Your task to perform on an android device: Add usb-c to usb-b to the cart on bestbuy.com Image 0: 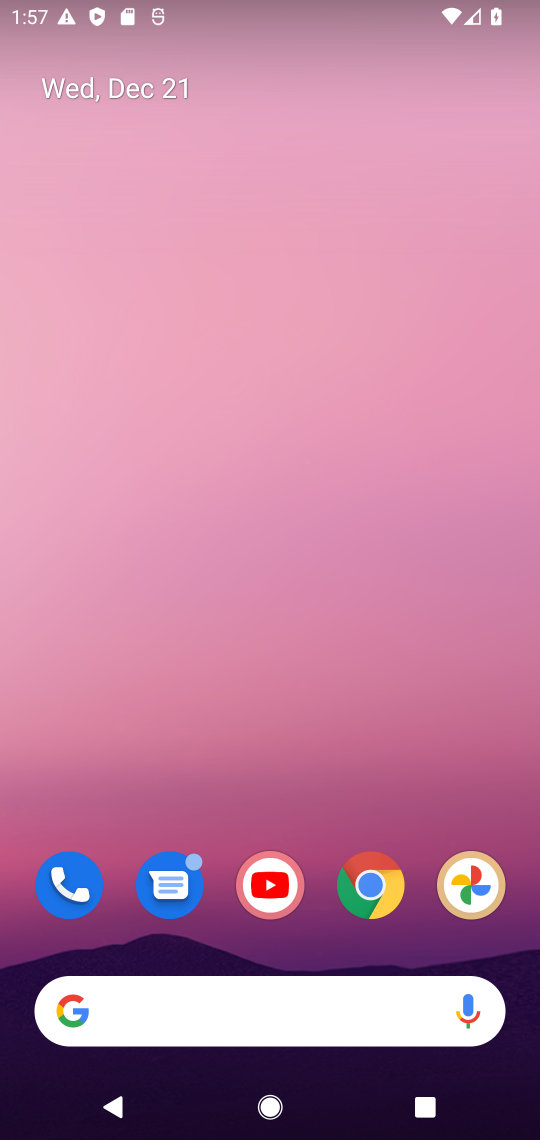
Step 0: drag from (241, 899) to (241, 681)
Your task to perform on an android device: Add usb-c to usb-b to the cart on bestbuy.com Image 1: 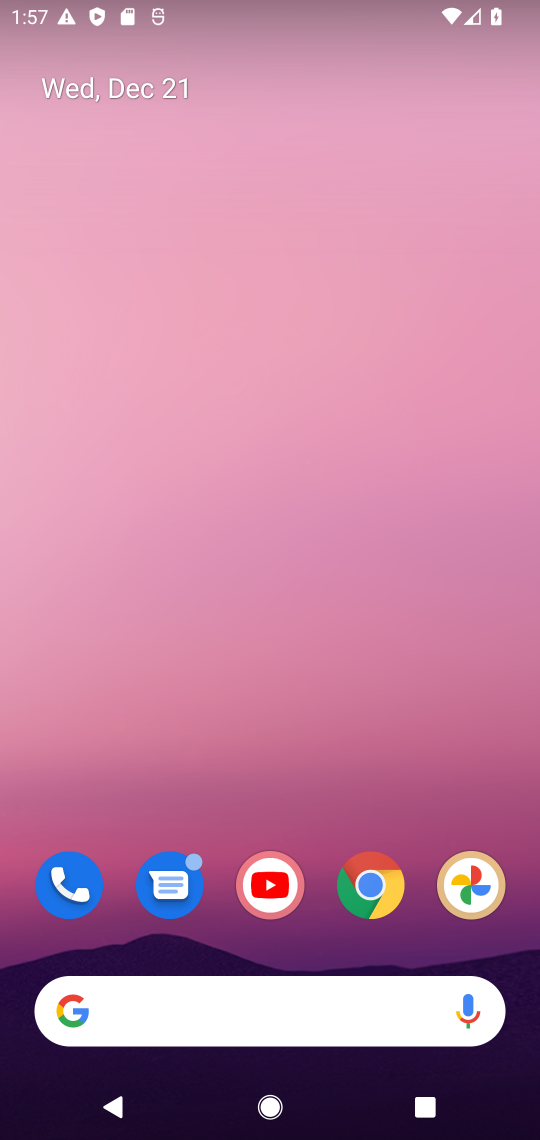
Step 1: drag from (260, 972) to (272, 471)
Your task to perform on an android device: Add usb-c to usb-b to the cart on bestbuy.com Image 2: 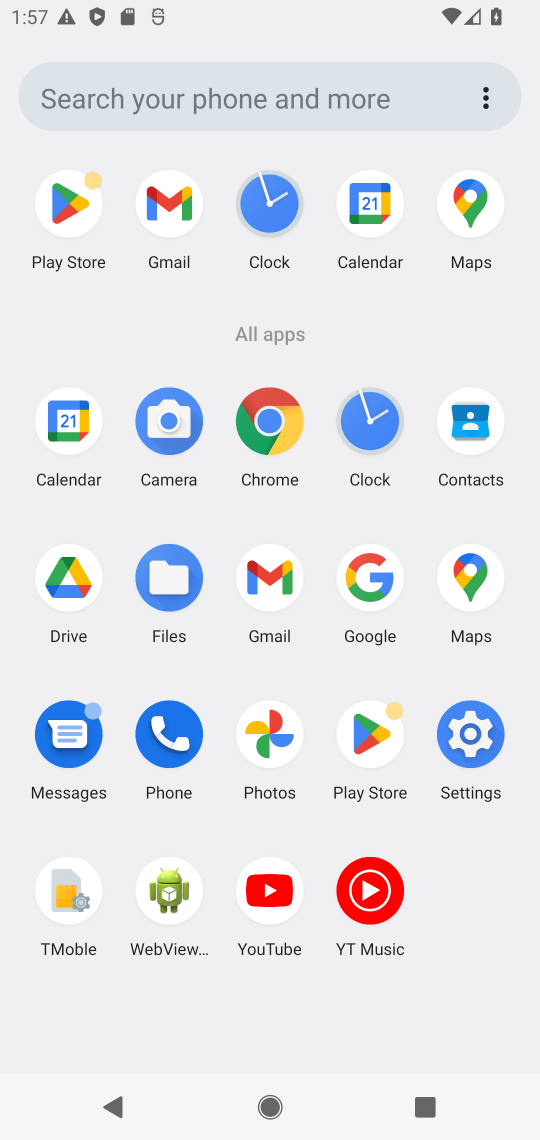
Step 2: click (377, 581)
Your task to perform on an android device: Add usb-c to usb-b to the cart on bestbuy.com Image 3: 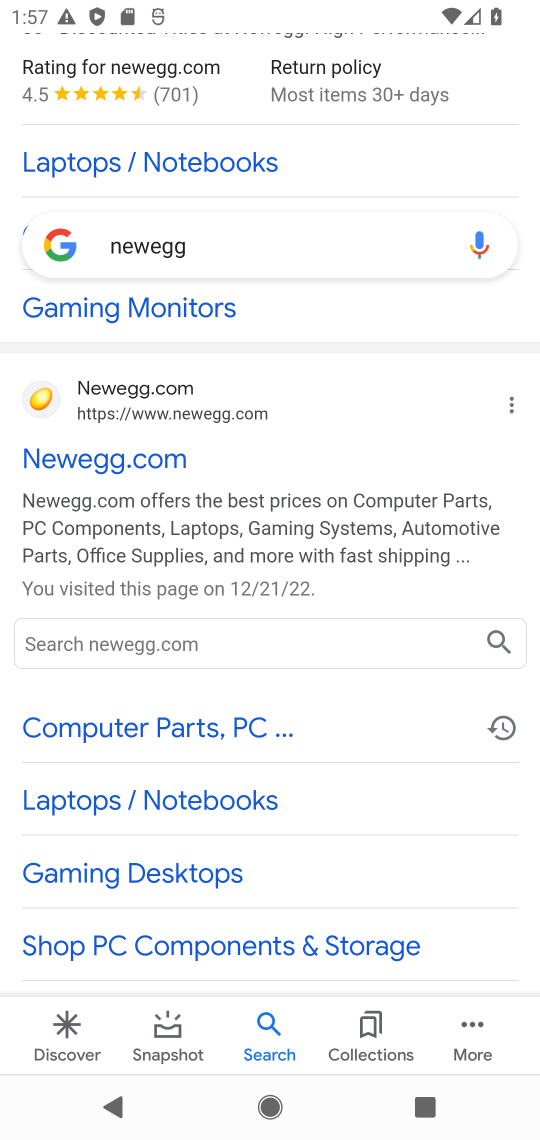
Step 3: drag from (169, 169) to (209, 757)
Your task to perform on an android device: Add usb-c to usb-b to the cart on bestbuy.com Image 4: 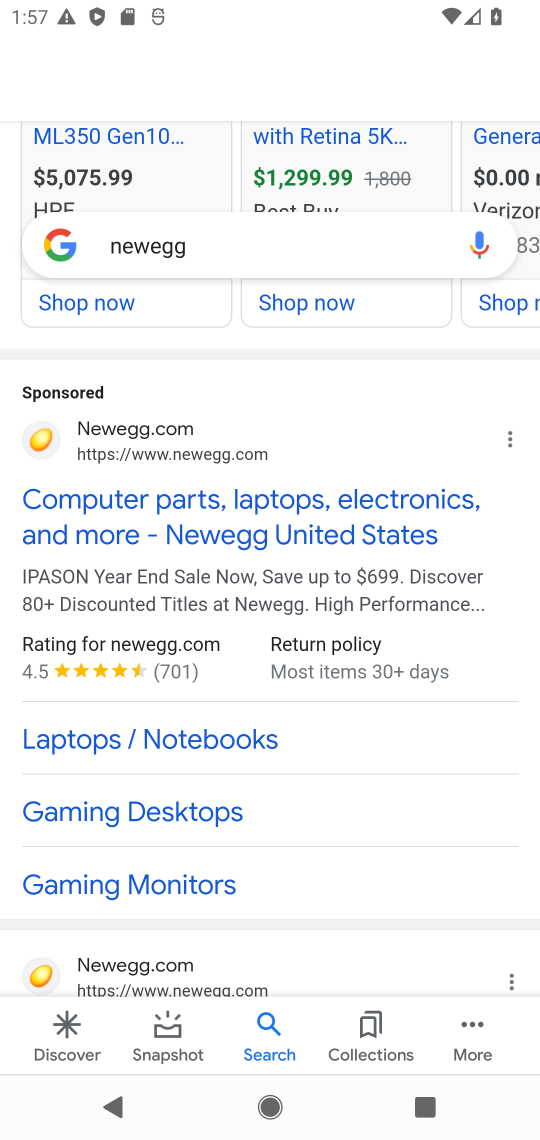
Step 4: drag from (212, 211) to (298, 815)
Your task to perform on an android device: Add usb-c to usb-b to the cart on bestbuy.com Image 5: 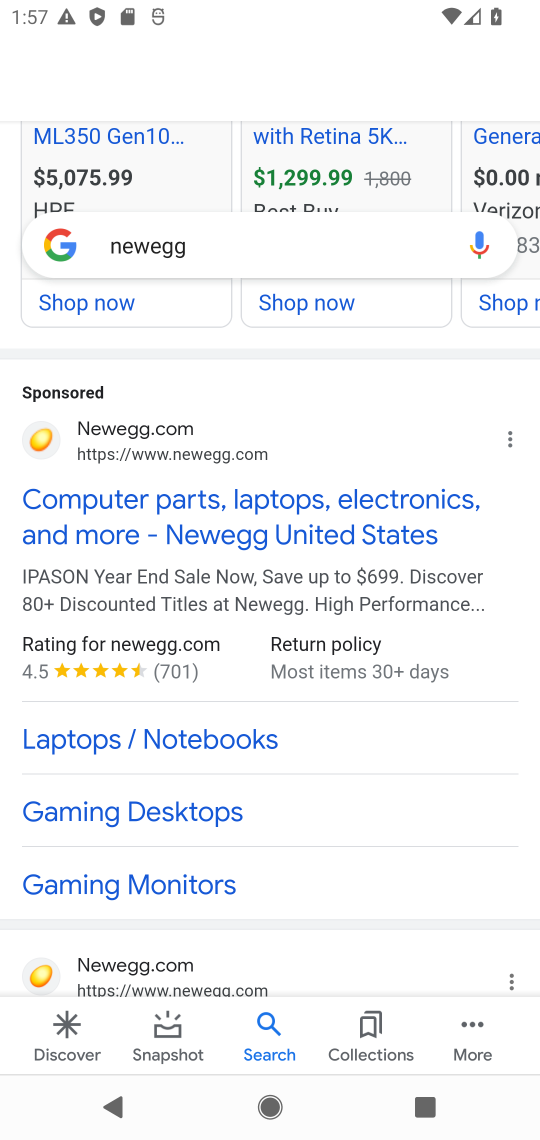
Step 5: drag from (224, 179) to (273, 934)
Your task to perform on an android device: Add usb-c to usb-b to the cart on bestbuy.com Image 6: 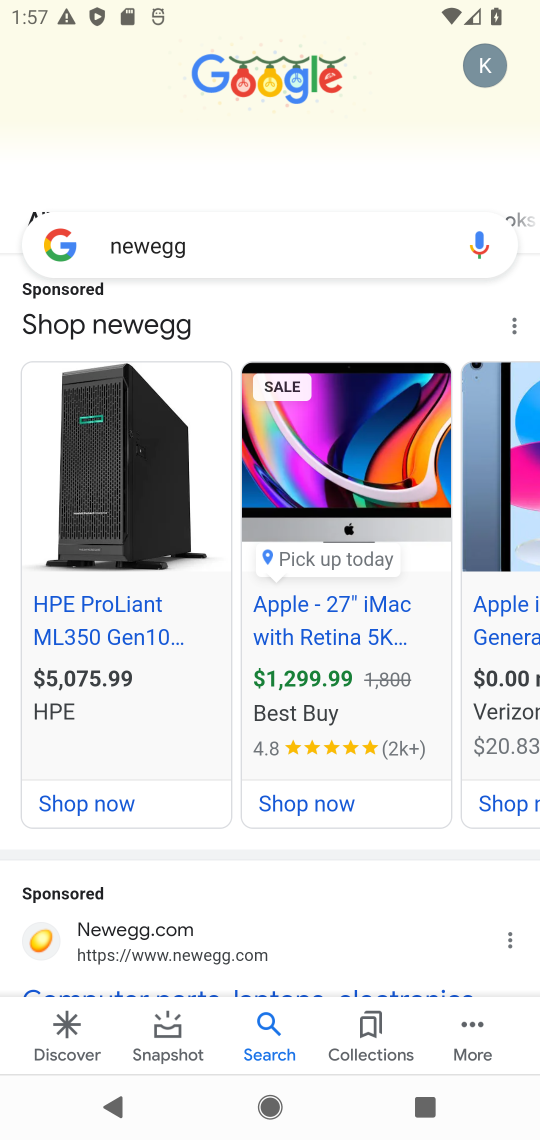
Step 6: click (233, 256)
Your task to perform on an android device: Add usb-c to usb-b to the cart on bestbuy.com Image 7: 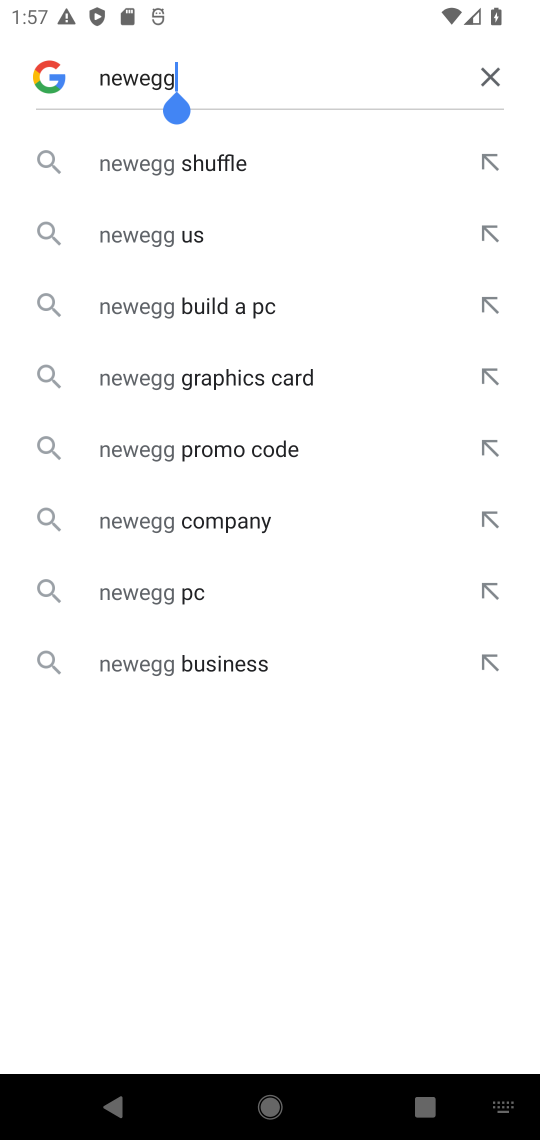
Step 7: click (495, 81)
Your task to perform on an android device: Add usb-c to usb-b to the cart on bestbuy.com Image 8: 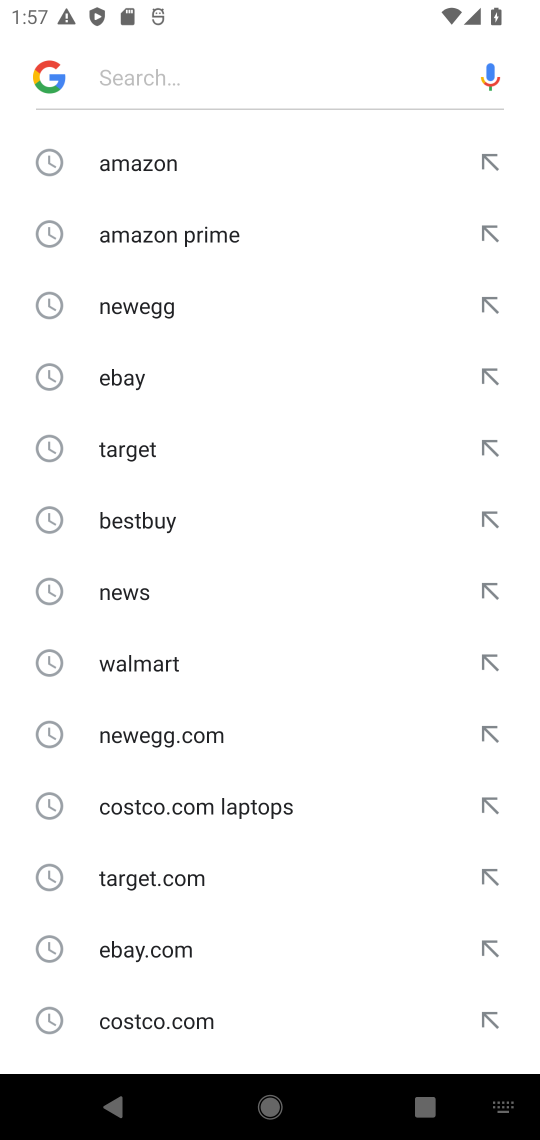
Step 8: click (141, 525)
Your task to perform on an android device: Add usb-c to usb-b to the cart on bestbuy.com Image 9: 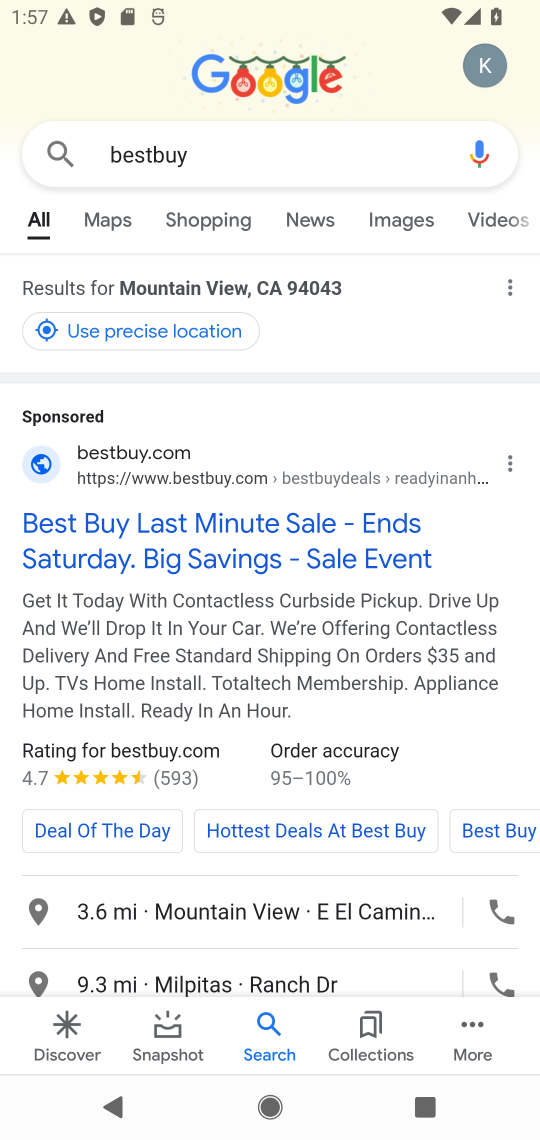
Step 9: click (160, 535)
Your task to perform on an android device: Add usb-c to usb-b to the cart on bestbuy.com Image 10: 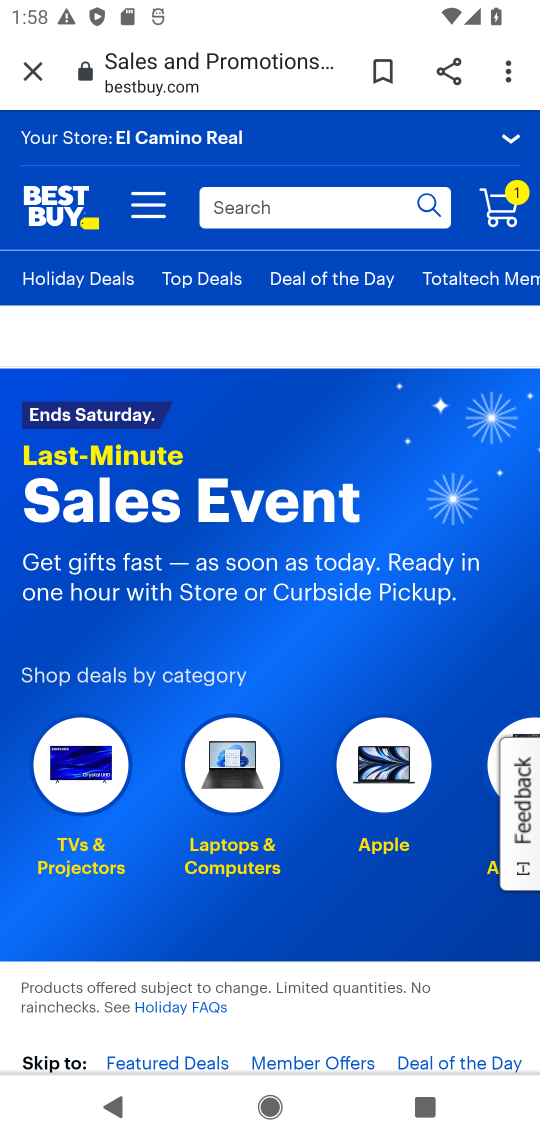
Step 10: click (277, 209)
Your task to perform on an android device: Add usb-c to usb-b to the cart on bestbuy.com Image 11: 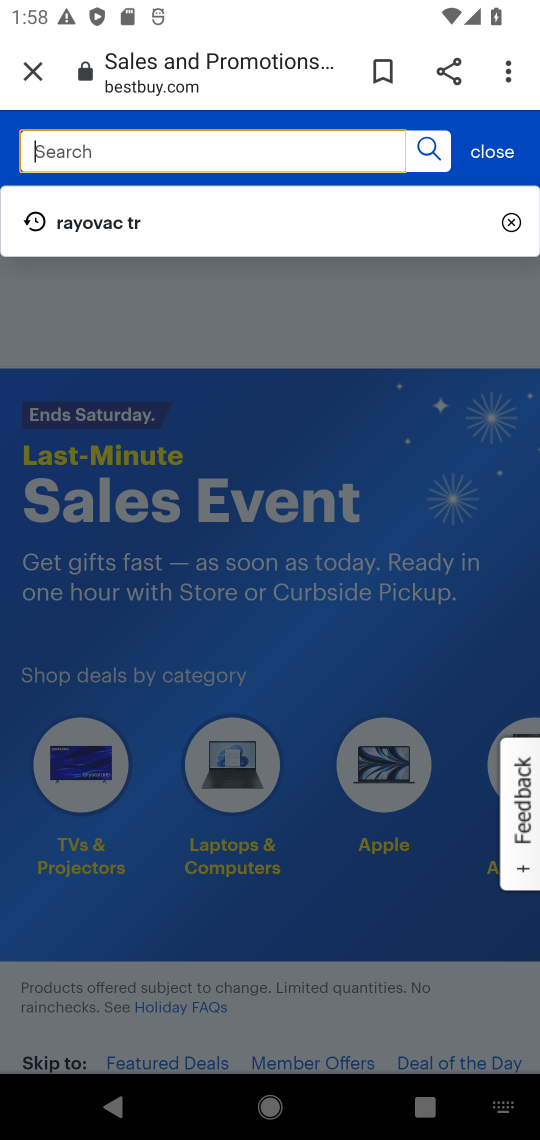
Step 11: type "usb-c to usb-b"
Your task to perform on an android device: Add usb-c to usb-b to the cart on bestbuy.com Image 12: 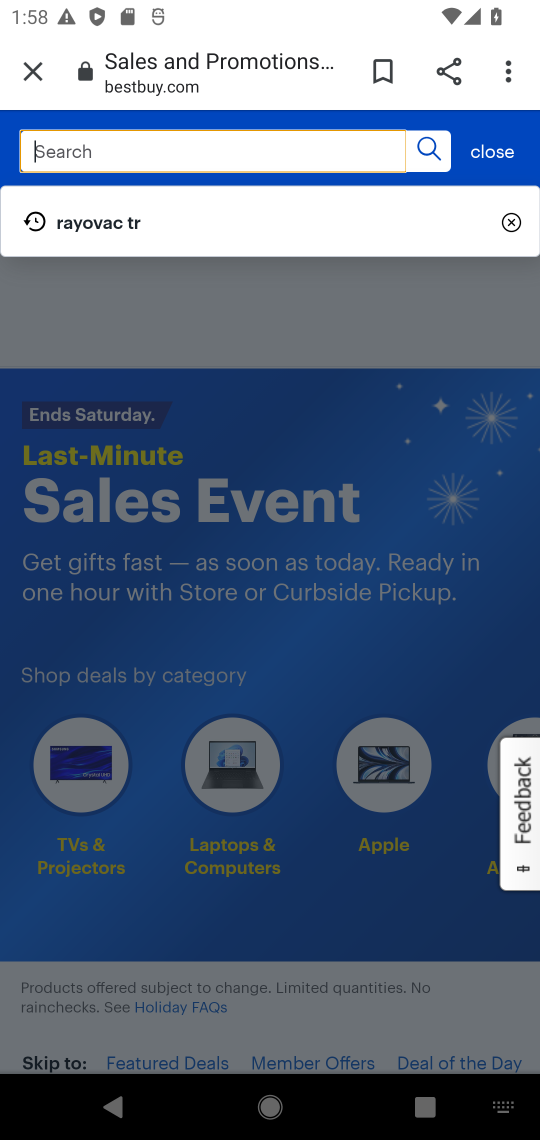
Step 12: click (422, 146)
Your task to perform on an android device: Add usb-c to usb-b to the cart on bestbuy.com Image 13: 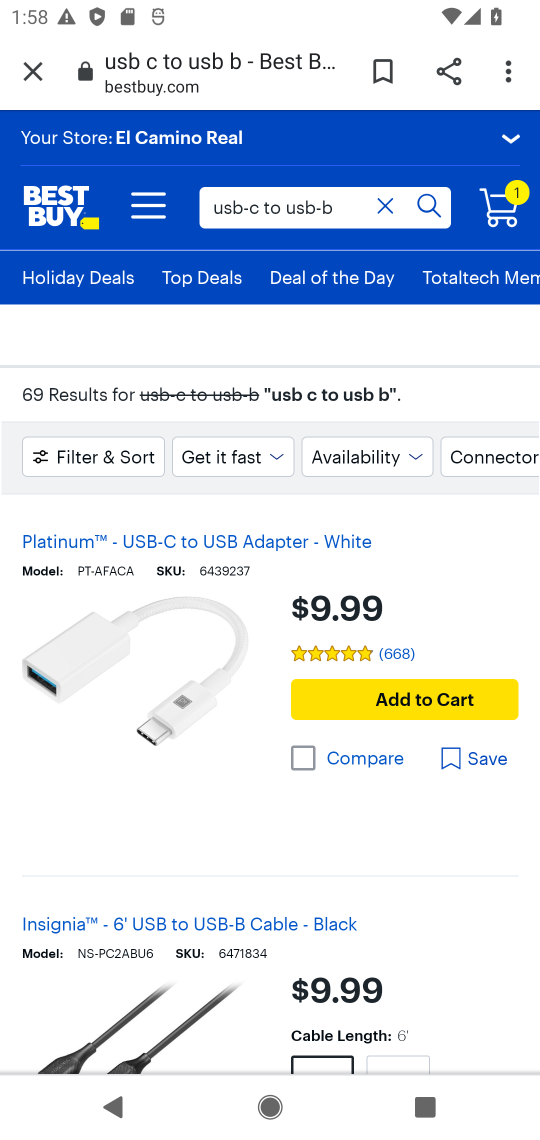
Step 13: drag from (283, 851) to (293, 478)
Your task to perform on an android device: Add usb-c to usb-b to the cart on bestbuy.com Image 14: 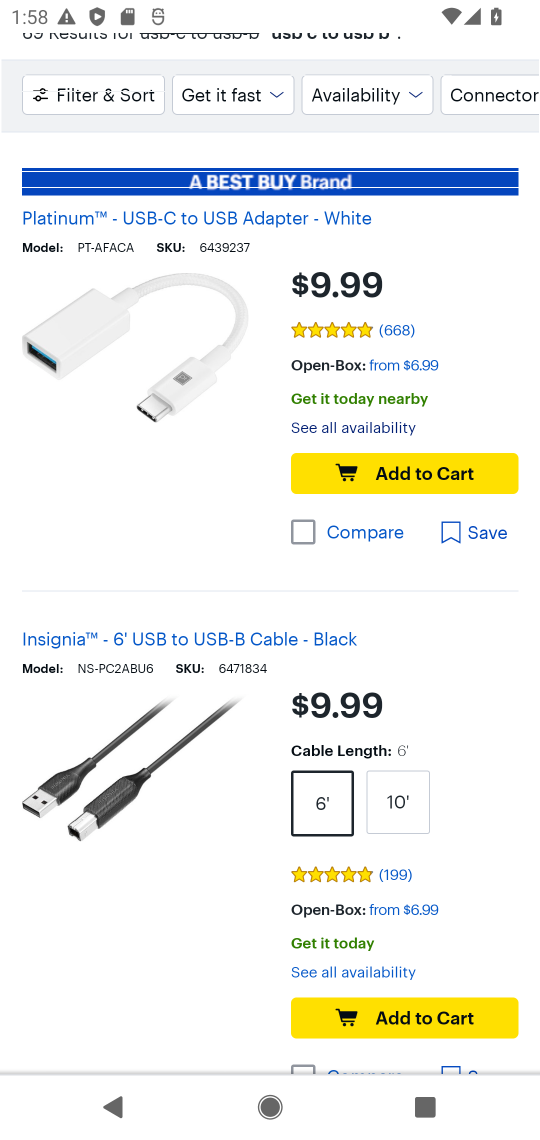
Step 14: click (380, 708)
Your task to perform on an android device: Add usb-c to usb-b to the cart on bestbuy.com Image 15: 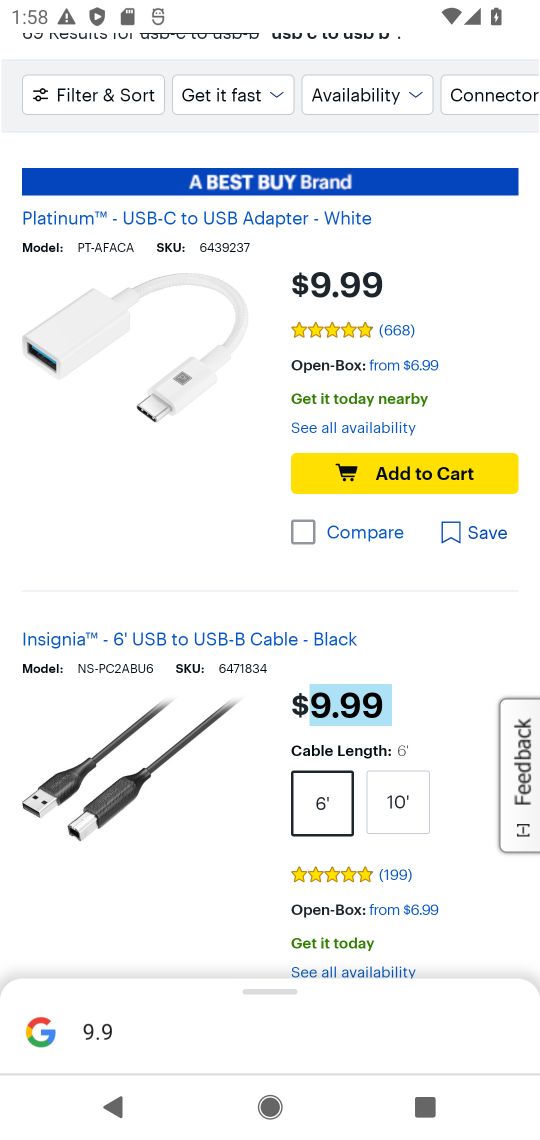
Step 15: click (392, 471)
Your task to perform on an android device: Add usb-c to usb-b to the cart on bestbuy.com Image 16: 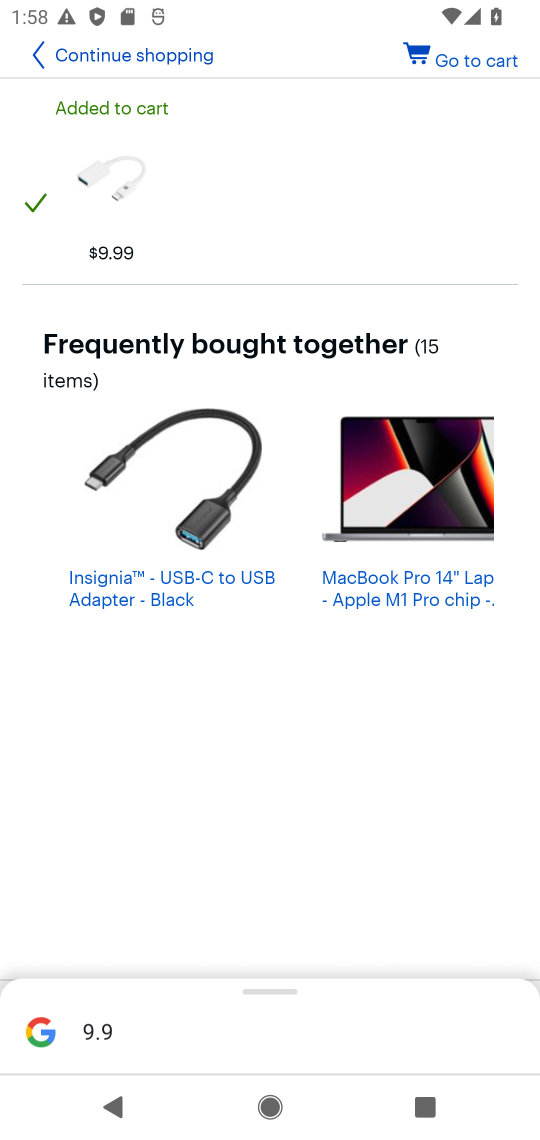
Step 16: task complete